Your task to perform on an android device: Go to wifi settings Image 0: 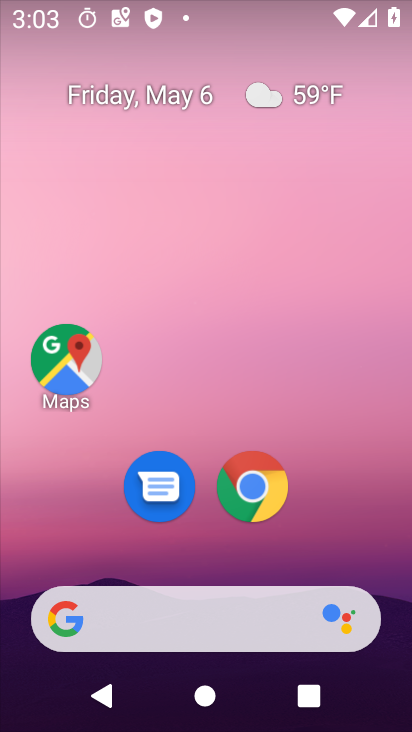
Step 0: drag from (326, 559) to (243, 126)
Your task to perform on an android device: Go to wifi settings Image 1: 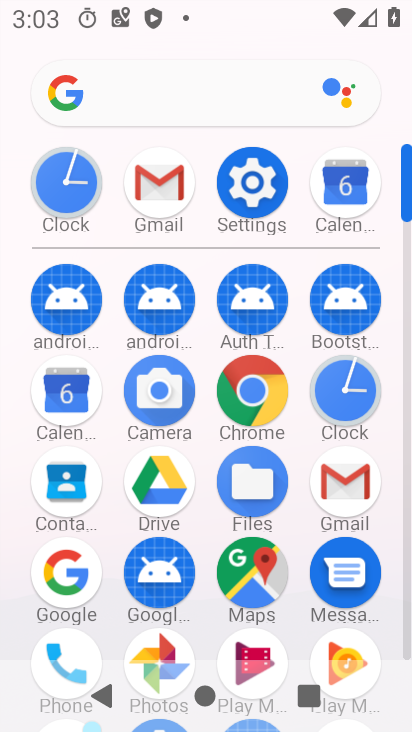
Step 1: click (263, 180)
Your task to perform on an android device: Go to wifi settings Image 2: 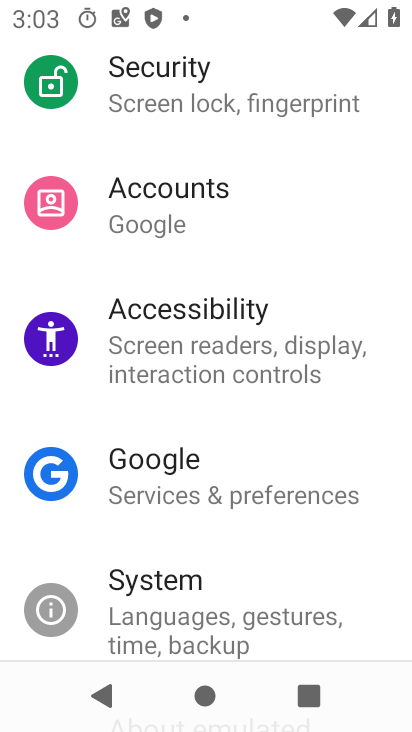
Step 2: drag from (244, 245) to (265, 722)
Your task to perform on an android device: Go to wifi settings Image 3: 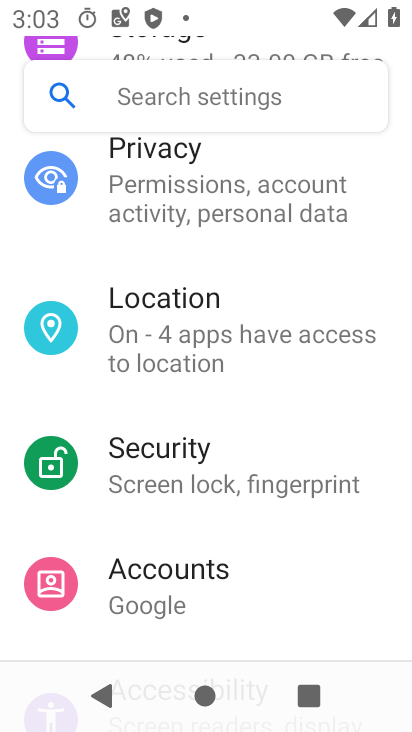
Step 3: drag from (269, 253) to (195, 660)
Your task to perform on an android device: Go to wifi settings Image 4: 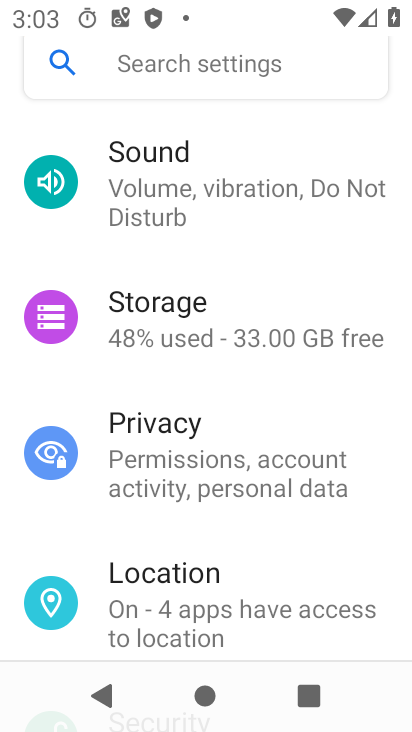
Step 4: drag from (242, 244) to (291, 562)
Your task to perform on an android device: Go to wifi settings Image 5: 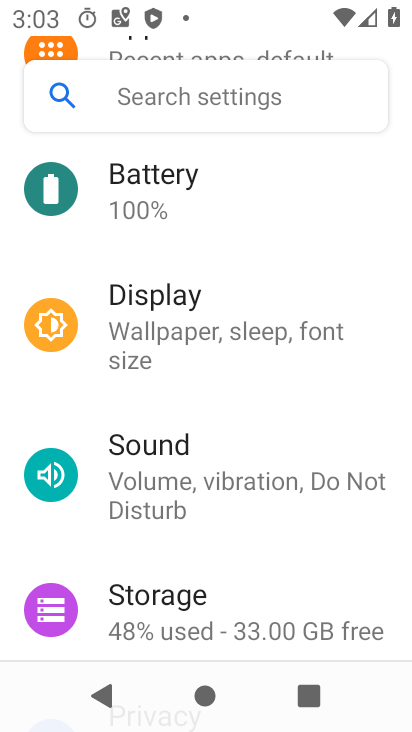
Step 5: drag from (200, 247) to (251, 637)
Your task to perform on an android device: Go to wifi settings Image 6: 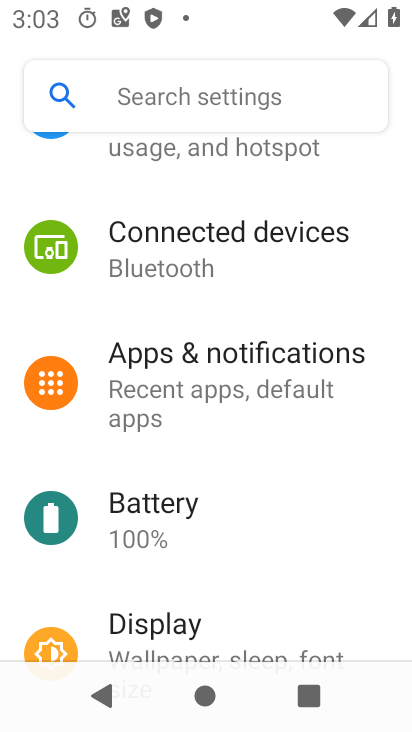
Step 6: drag from (239, 316) to (279, 716)
Your task to perform on an android device: Go to wifi settings Image 7: 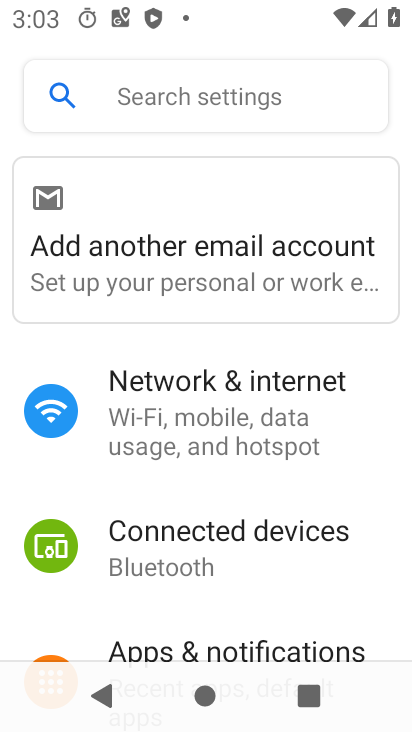
Step 7: click (195, 401)
Your task to perform on an android device: Go to wifi settings Image 8: 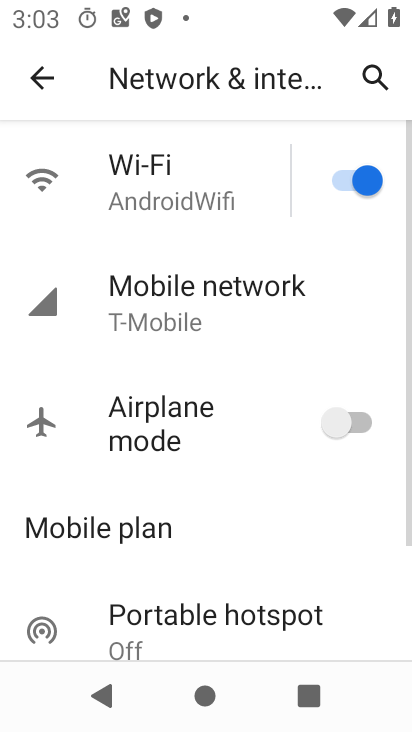
Step 8: click (150, 178)
Your task to perform on an android device: Go to wifi settings Image 9: 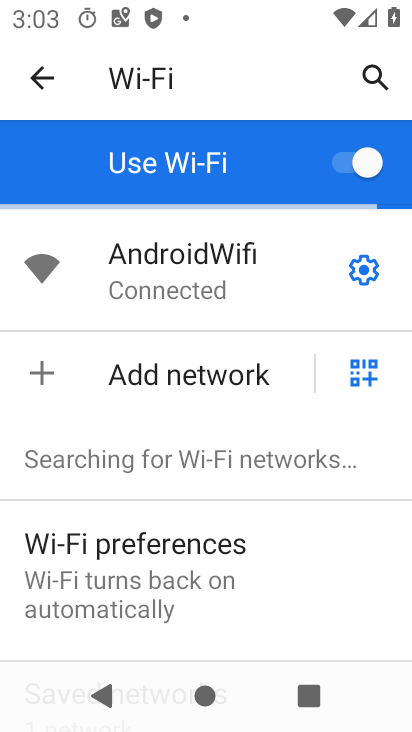
Step 9: task complete